Your task to perform on an android device: clear all cookies in the chrome app Image 0: 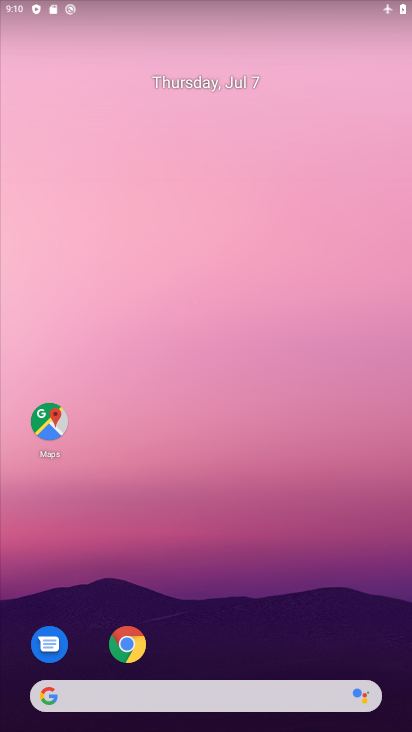
Step 0: drag from (256, 606) to (229, 101)
Your task to perform on an android device: clear all cookies in the chrome app Image 1: 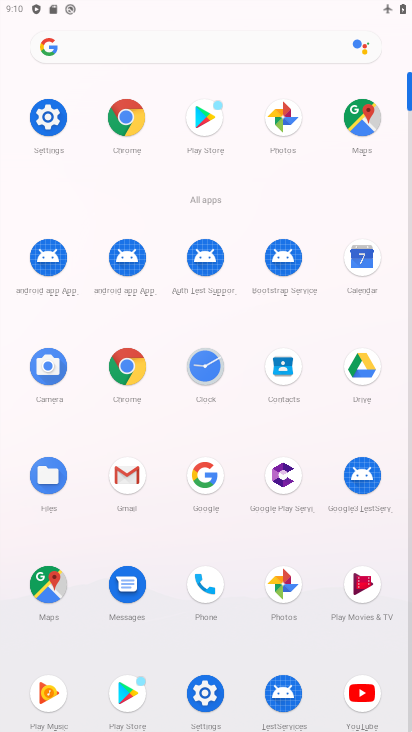
Step 1: click (113, 107)
Your task to perform on an android device: clear all cookies in the chrome app Image 2: 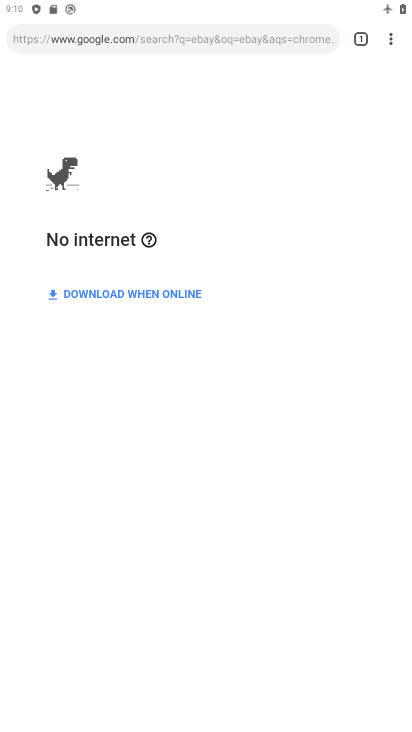
Step 2: drag from (395, 42) to (271, 216)
Your task to perform on an android device: clear all cookies in the chrome app Image 3: 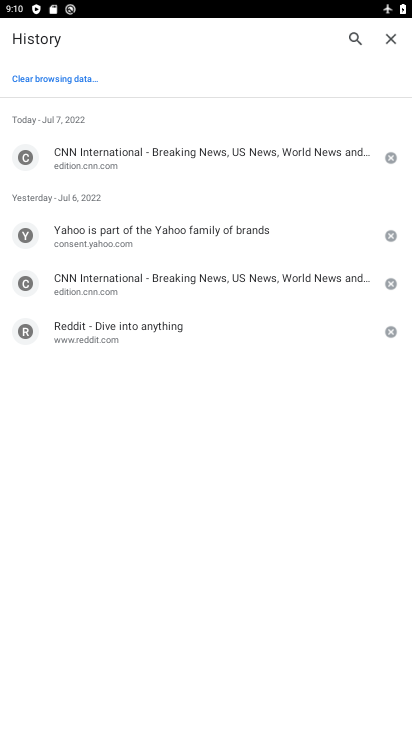
Step 3: click (68, 80)
Your task to perform on an android device: clear all cookies in the chrome app Image 4: 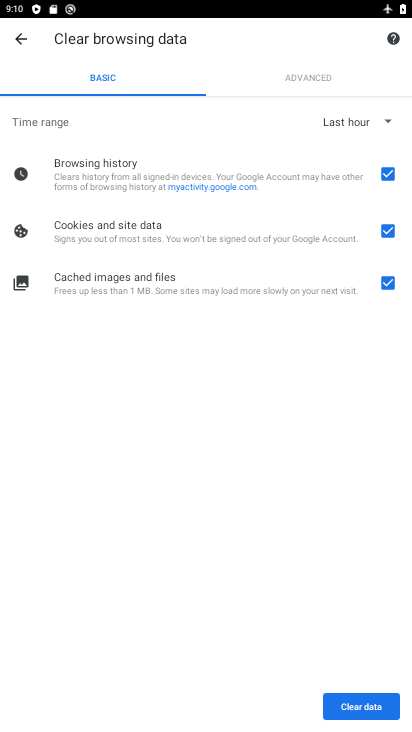
Step 4: click (386, 126)
Your task to perform on an android device: clear all cookies in the chrome app Image 5: 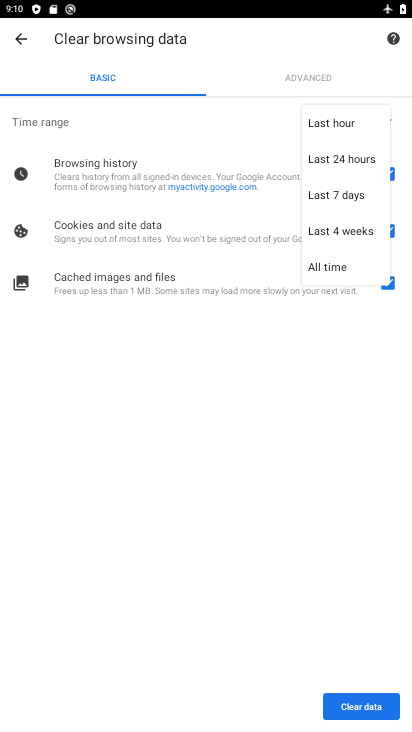
Step 5: click (340, 261)
Your task to perform on an android device: clear all cookies in the chrome app Image 6: 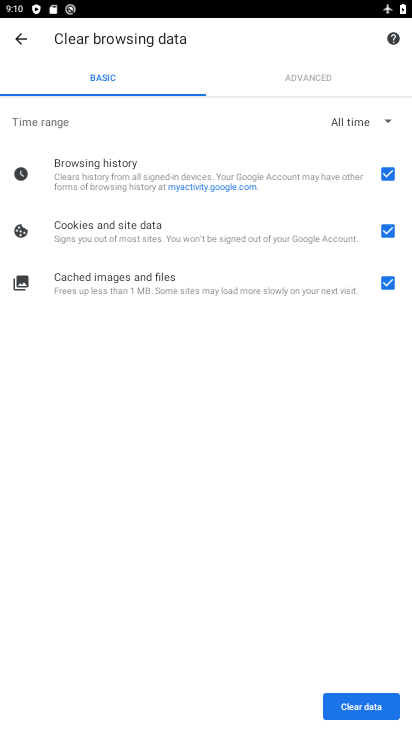
Step 6: click (355, 707)
Your task to perform on an android device: clear all cookies in the chrome app Image 7: 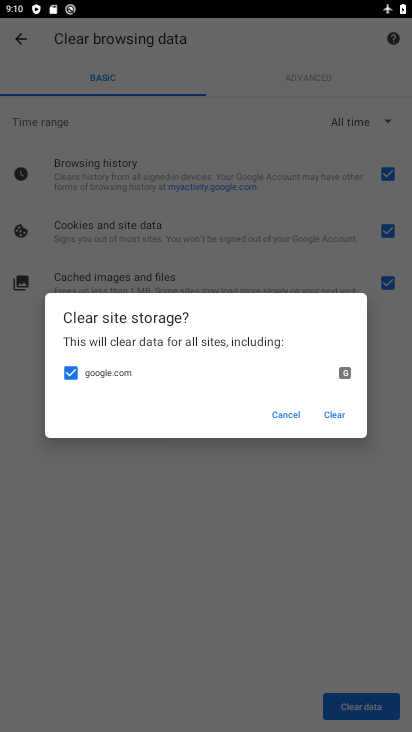
Step 7: click (329, 422)
Your task to perform on an android device: clear all cookies in the chrome app Image 8: 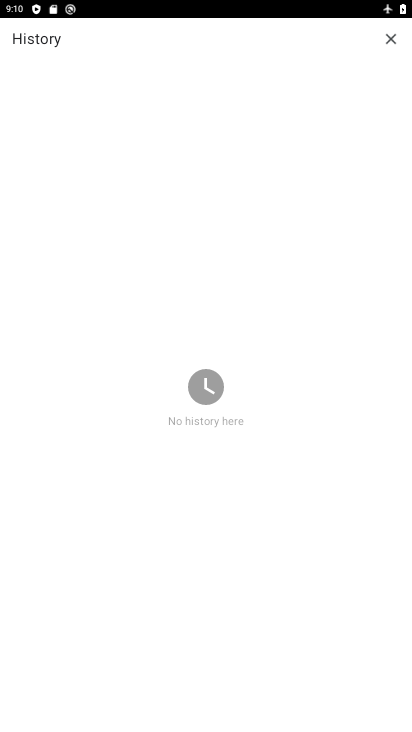
Step 8: task complete